Your task to perform on an android device: Is it going to rain this weekend? Image 0: 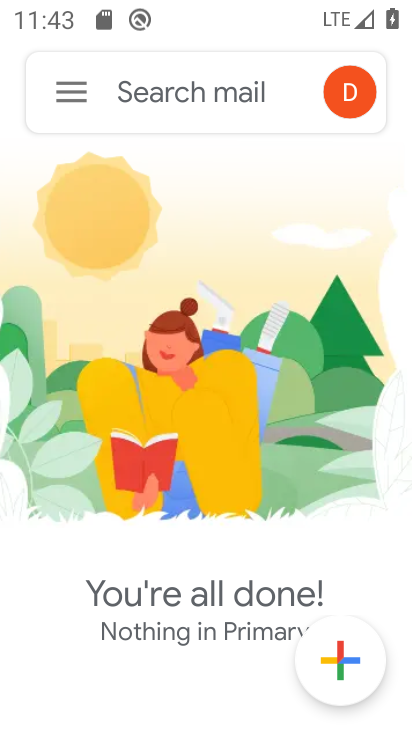
Step 0: press home button
Your task to perform on an android device: Is it going to rain this weekend? Image 1: 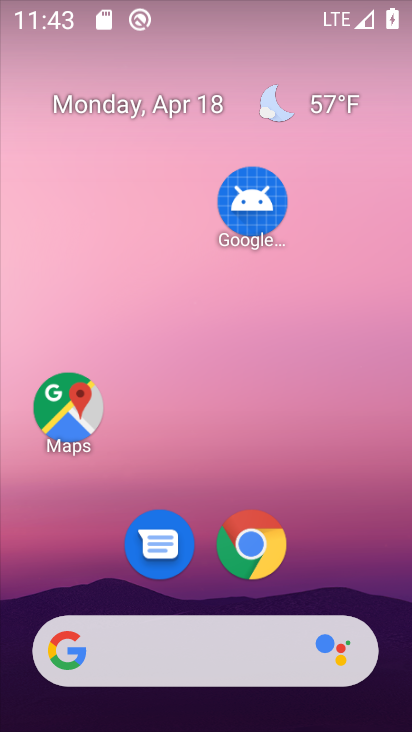
Step 1: drag from (227, 609) to (210, 168)
Your task to perform on an android device: Is it going to rain this weekend? Image 2: 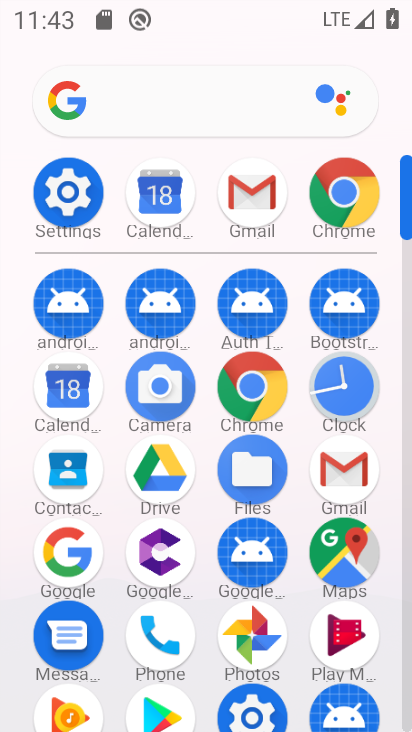
Step 2: click (70, 555)
Your task to perform on an android device: Is it going to rain this weekend? Image 3: 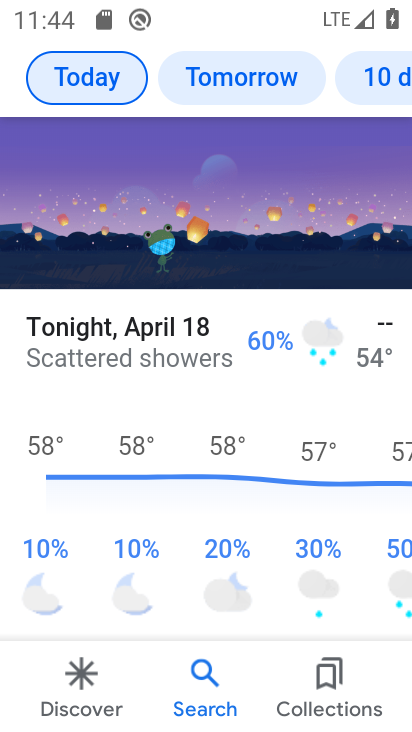
Step 3: drag from (272, 186) to (231, 677)
Your task to perform on an android device: Is it going to rain this weekend? Image 4: 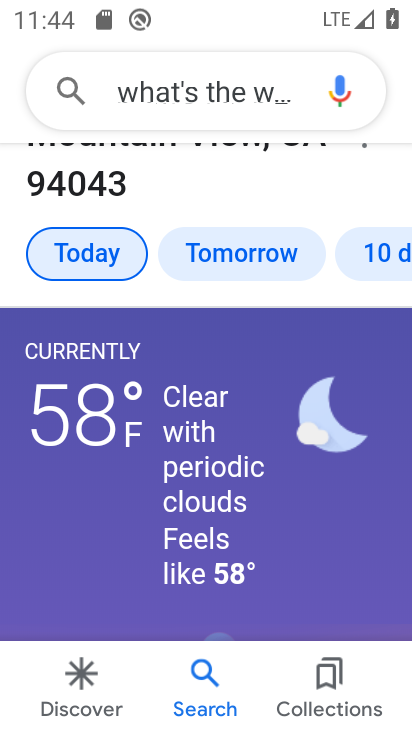
Step 4: press home button
Your task to perform on an android device: Is it going to rain this weekend? Image 5: 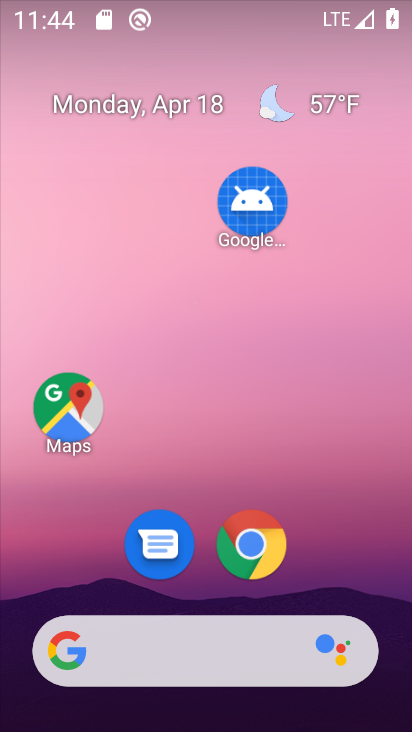
Step 5: drag from (267, 522) to (291, 116)
Your task to perform on an android device: Is it going to rain this weekend? Image 6: 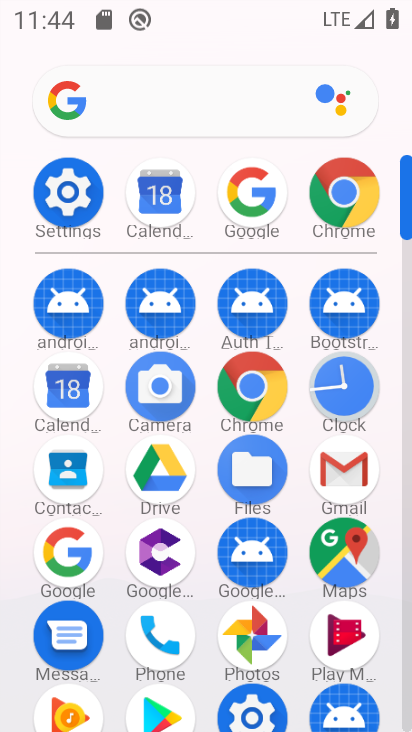
Step 6: click (341, 177)
Your task to perform on an android device: Is it going to rain this weekend? Image 7: 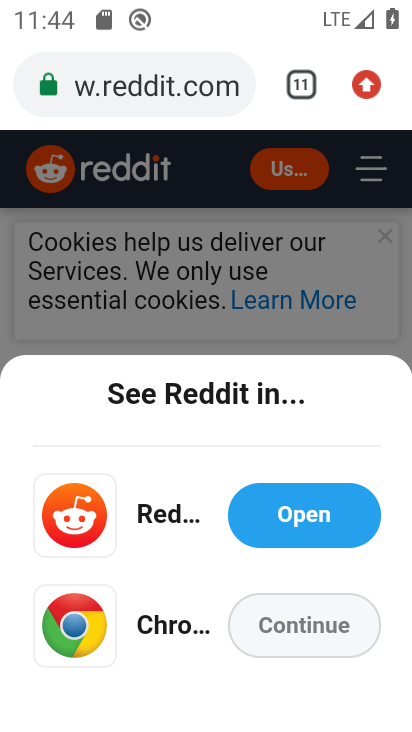
Step 7: click (366, 85)
Your task to perform on an android device: Is it going to rain this weekend? Image 8: 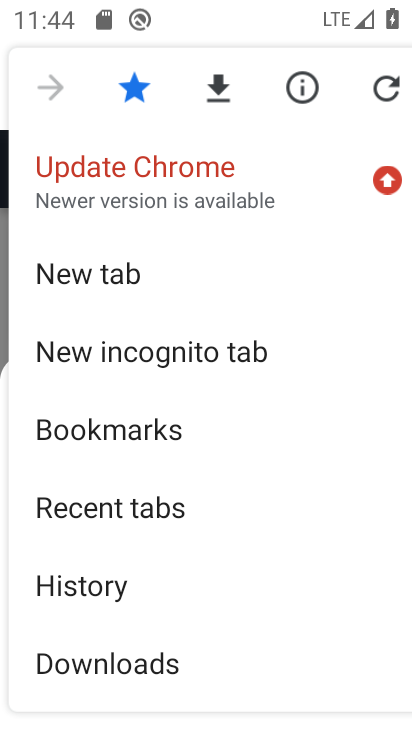
Step 8: click (149, 271)
Your task to perform on an android device: Is it going to rain this weekend? Image 9: 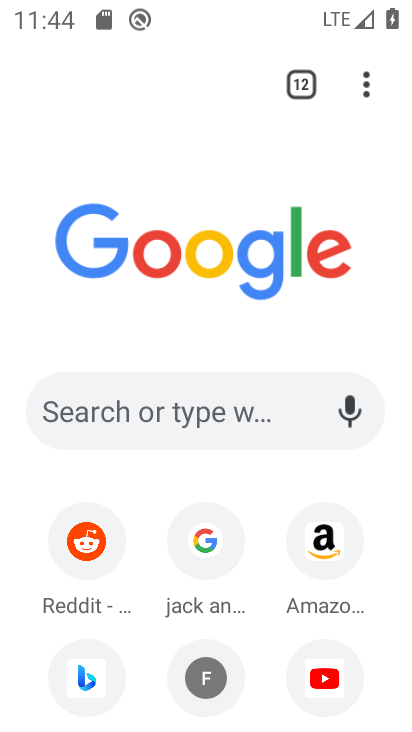
Step 9: click (179, 401)
Your task to perform on an android device: Is it going to rain this weekend? Image 10: 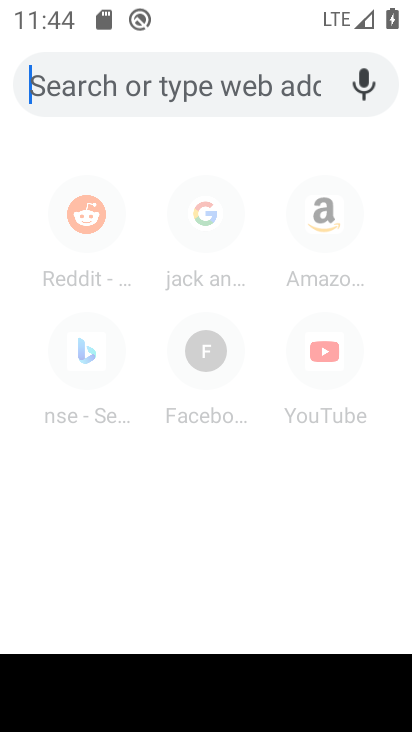
Step 10: click (238, 72)
Your task to perform on an android device: Is it going to rain this weekend? Image 11: 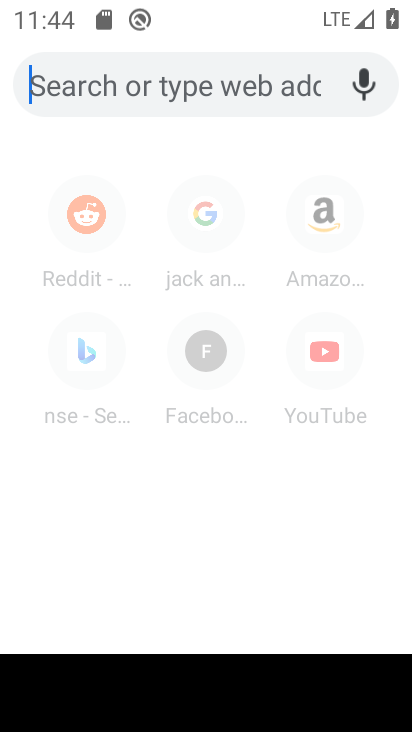
Step 11: type "Is it going to rain this weekend?"
Your task to perform on an android device: Is it going to rain this weekend? Image 12: 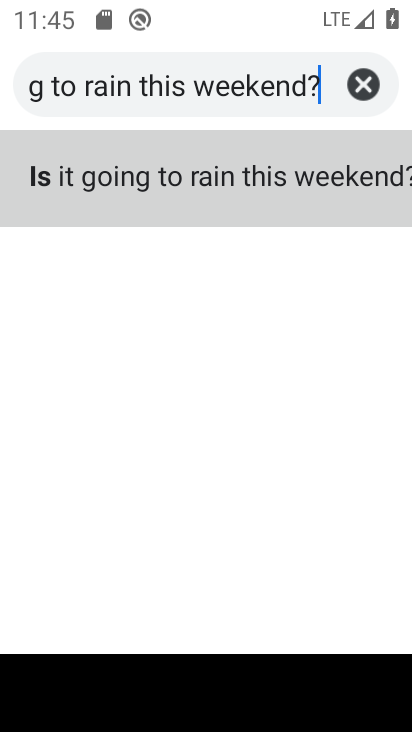
Step 12: click (325, 174)
Your task to perform on an android device: Is it going to rain this weekend? Image 13: 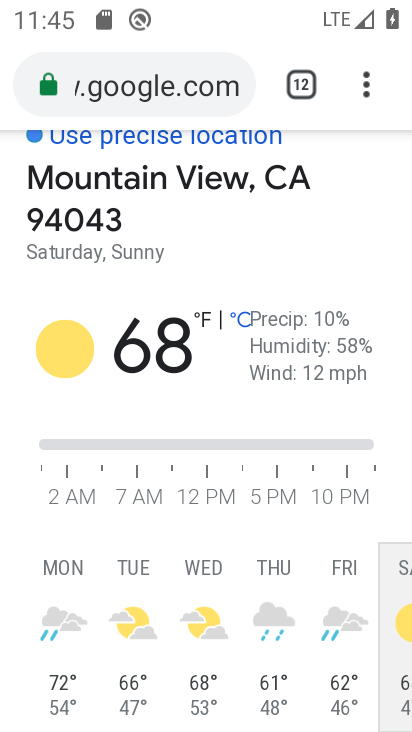
Step 13: task complete